Your task to perform on an android device: Go to privacy settings Image 0: 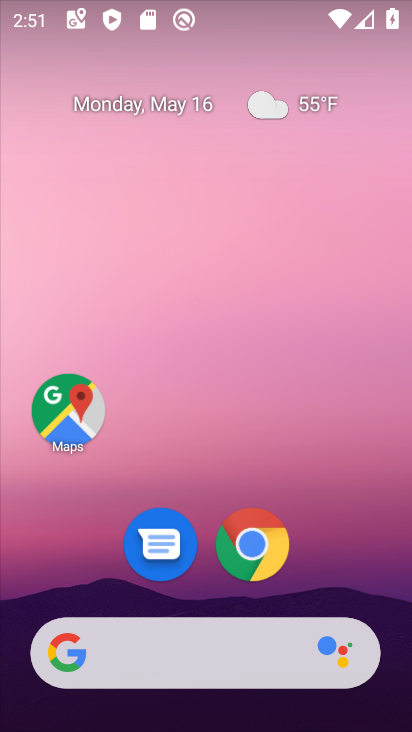
Step 0: drag from (352, 554) to (299, 73)
Your task to perform on an android device: Go to privacy settings Image 1: 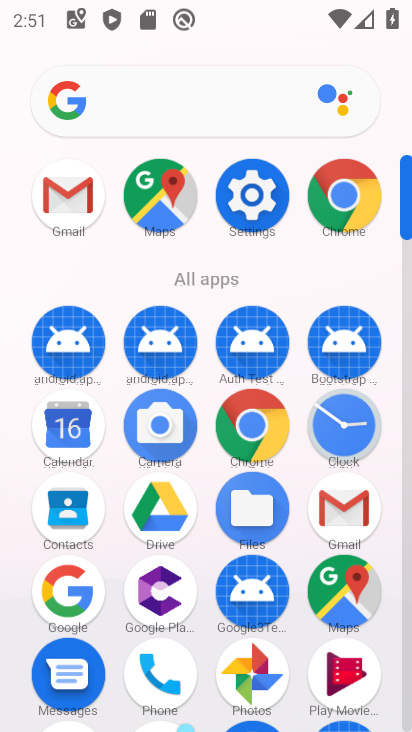
Step 1: click (270, 190)
Your task to perform on an android device: Go to privacy settings Image 2: 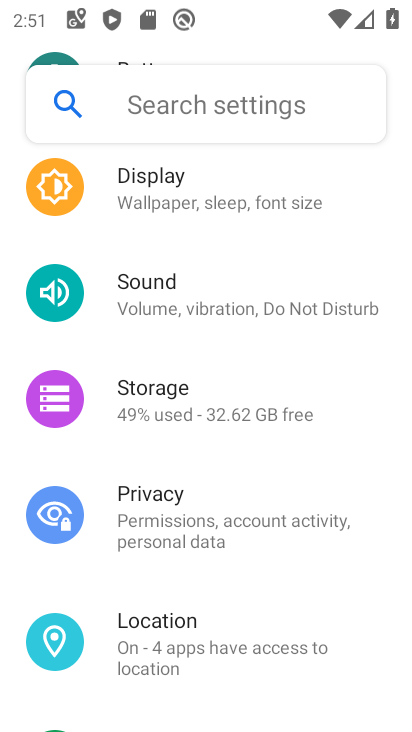
Step 2: click (173, 494)
Your task to perform on an android device: Go to privacy settings Image 3: 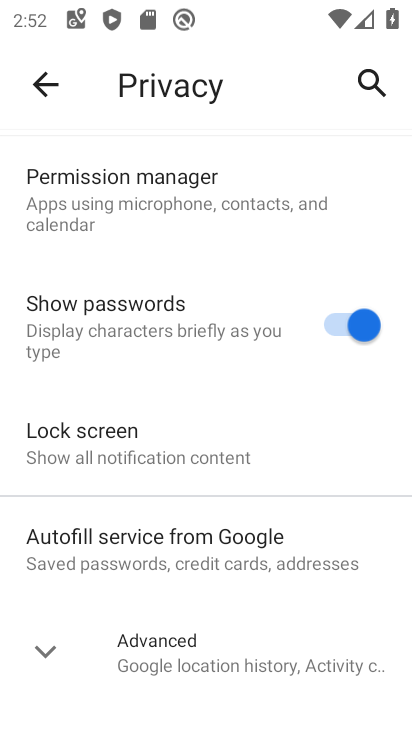
Step 3: task complete